Your task to perform on an android device: turn off translation in the chrome app Image 0: 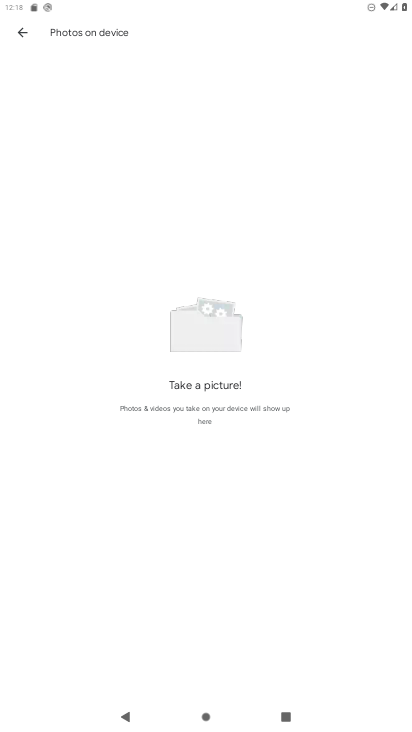
Step 0: press home button
Your task to perform on an android device: turn off translation in the chrome app Image 1: 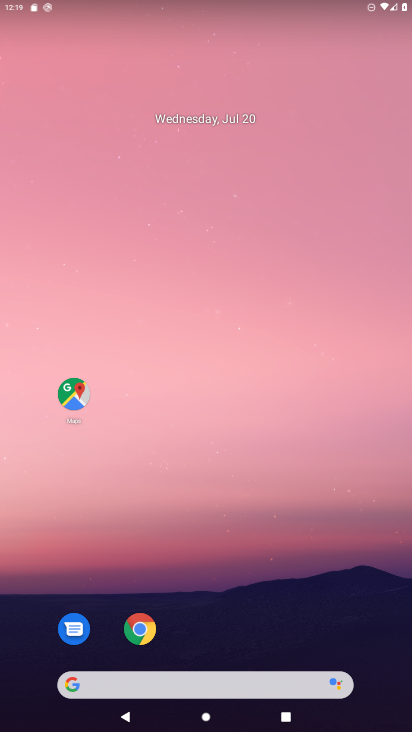
Step 1: click (140, 634)
Your task to perform on an android device: turn off translation in the chrome app Image 2: 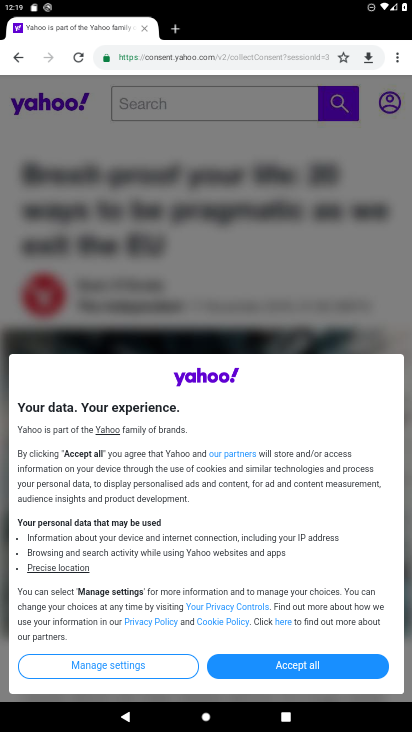
Step 2: press home button
Your task to perform on an android device: turn off translation in the chrome app Image 3: 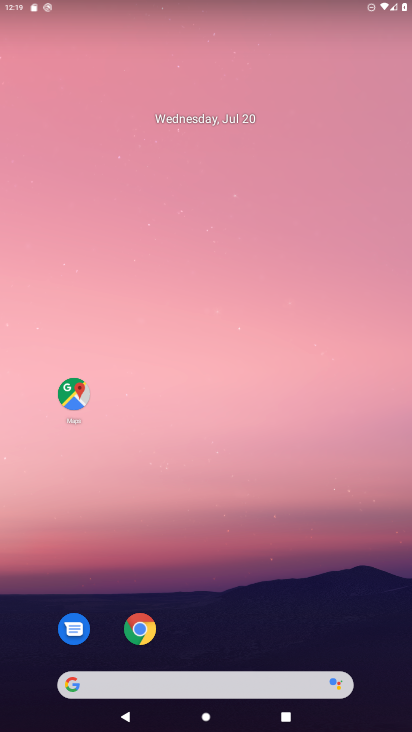
Step 3: drag from (170, 587) to (186, 278)
Your task to perform on an android device: turn off translation in the chrome app Image 4: 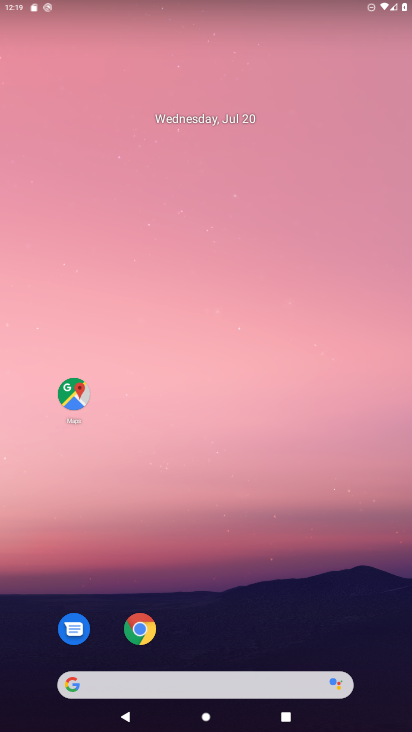
Step 4: click (136, 631)
Your task to perform on an android device: turn off translation in the chrome app Image 5: 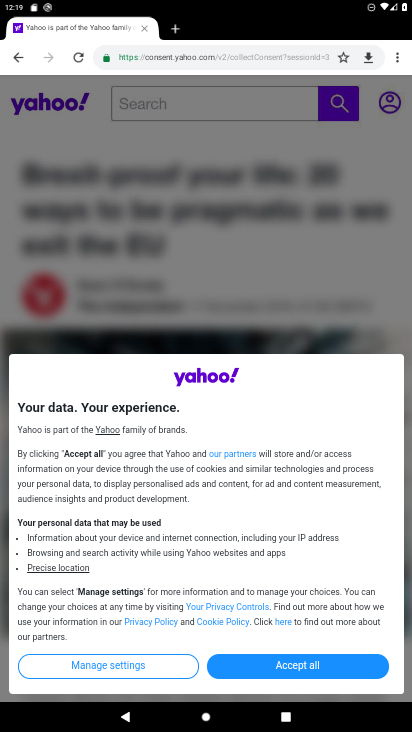
Step 5: click (393, 52)
Your task to perform on an android device: turn off translation in the chrome app Image 6: 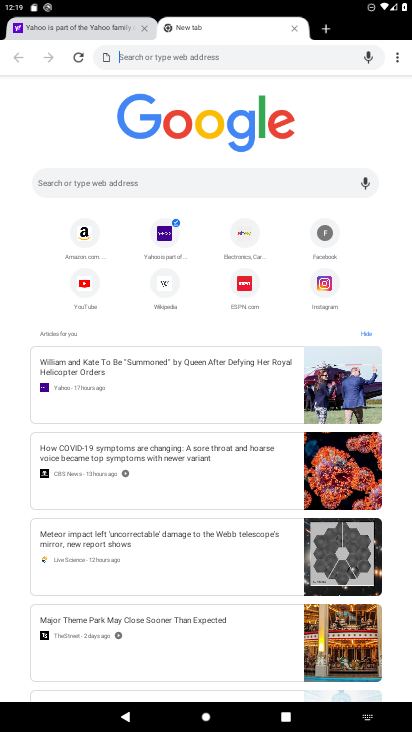
Step 6: click (290, 28)
Your task to perform on an android device: turn off translation in the chrome app Image 7: 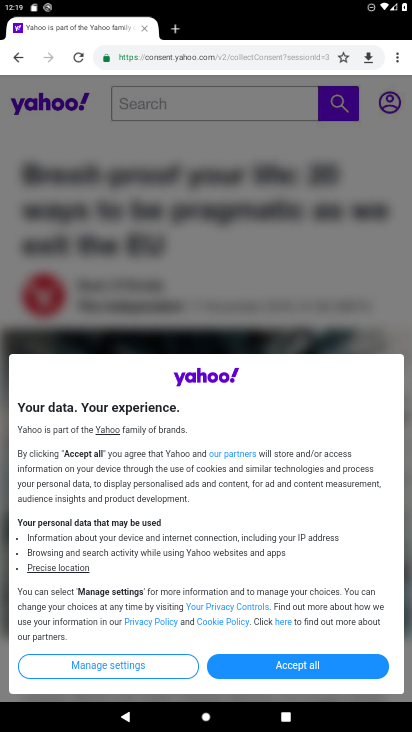
Step 7: click (398, 61)
Your task to perform on an android device: turn off translation in the chrome app Image 8: 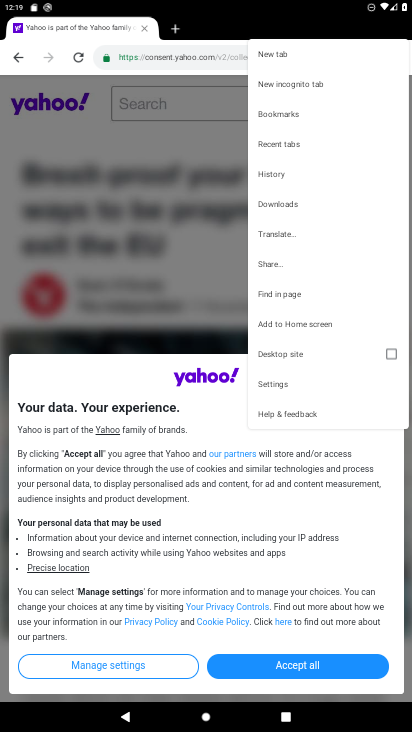
Step 8: click (274, 377)
Your task to perform on an android device: turn off translation in the chrome app Image 9: 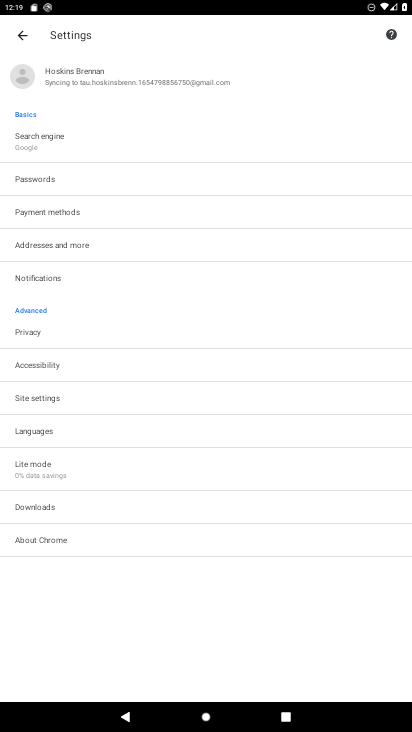
Step 9: click (37, 433)
Your task to perform on an android device: turn off translation in the chrome app Image 10: 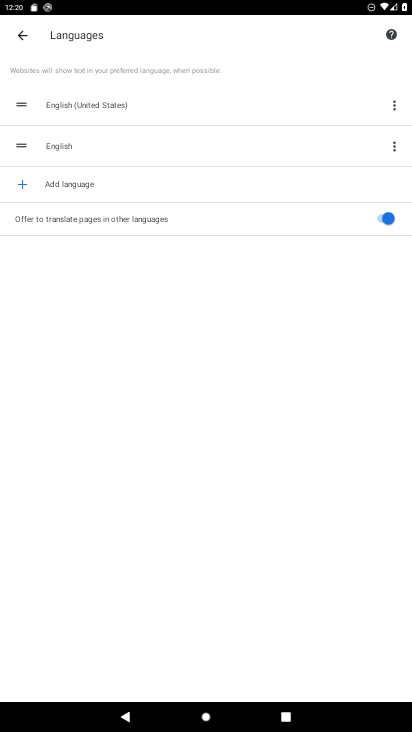
Step 10: click (375, 212)
Your task to perform on an android device: turn off translation in the chrome app Image 11: 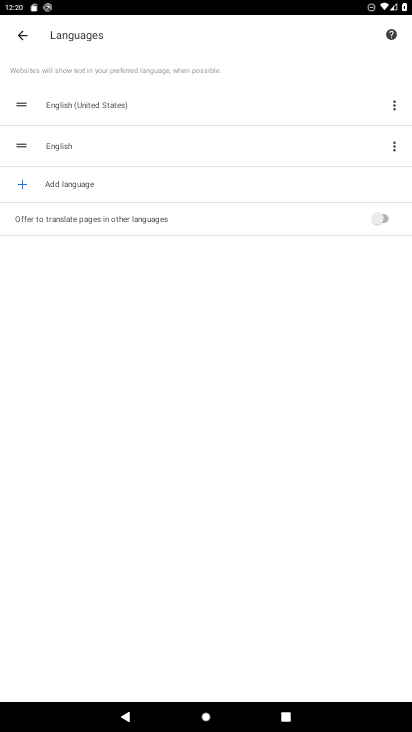
Step 11: task complete